Your task to perform on an android device: What's on my calendar today? Image 0: 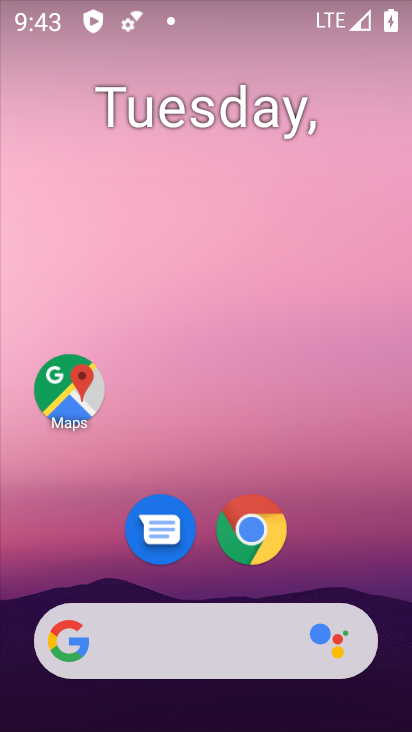
Step 0: drag from (373, 623) to (355, 134)
Your task to perform on an android device: What's on my calendar today? Image 1: 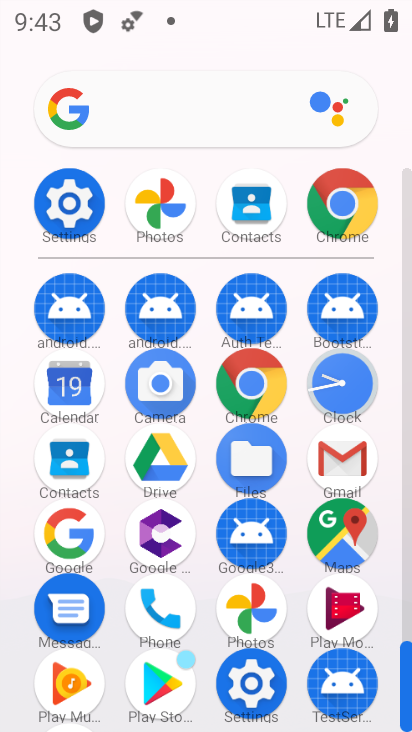
Step 1: click (97, 381)
Your task to perform on an android device: What's on my calendar today? Image 2: 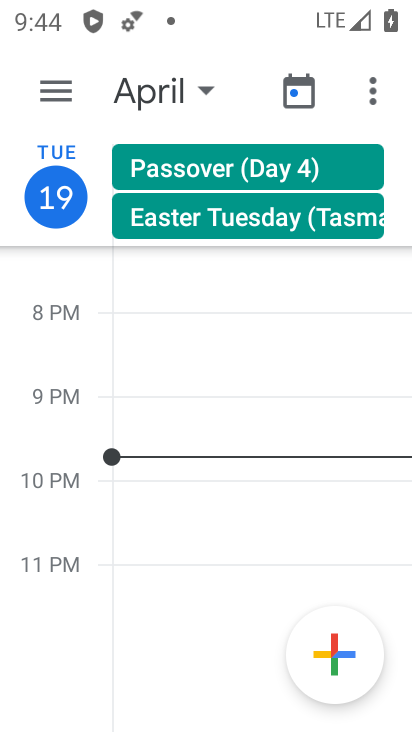
Step 2: click (208, 90)
Your task to perform on an android device: What's on my calendar today? Image 3: 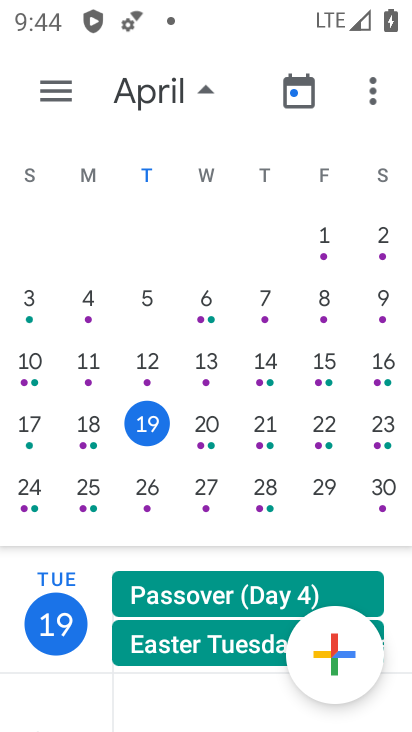
Step 3: click (207, 429)
Your task to perform on an android device: What's on my calendar today? Image 4: 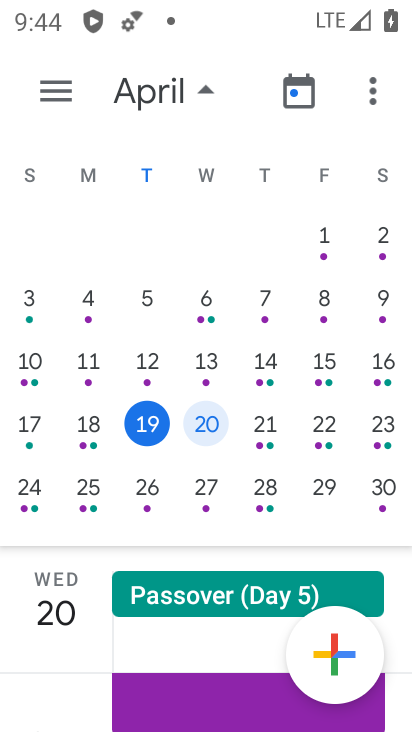
Step 4: task complete